Your task to perform on an android device: open sync settings in chrome Image 0: 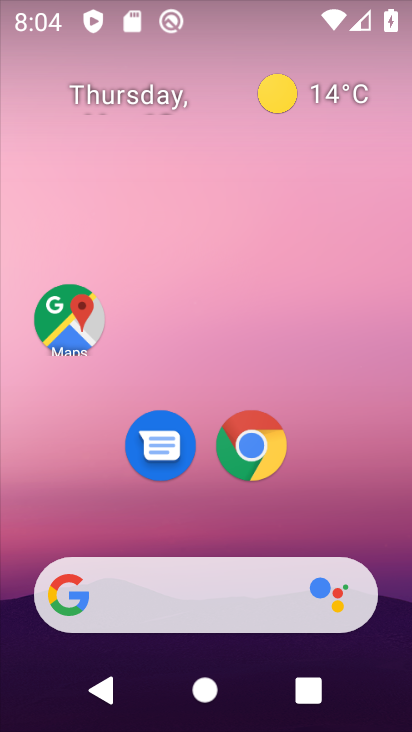
Step 0: click (249, 438)
Your task to perform on an android device: open sync settings in chrome Image 1: 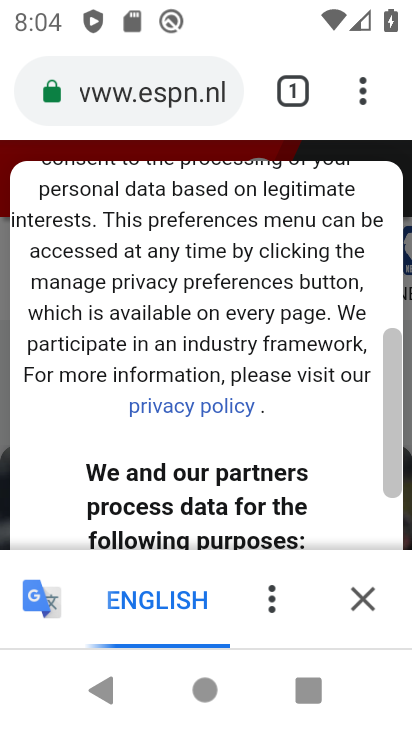
Step 1: click (364, 101)
Your task to perform on an android device: open sync settings in chrome Image 2: 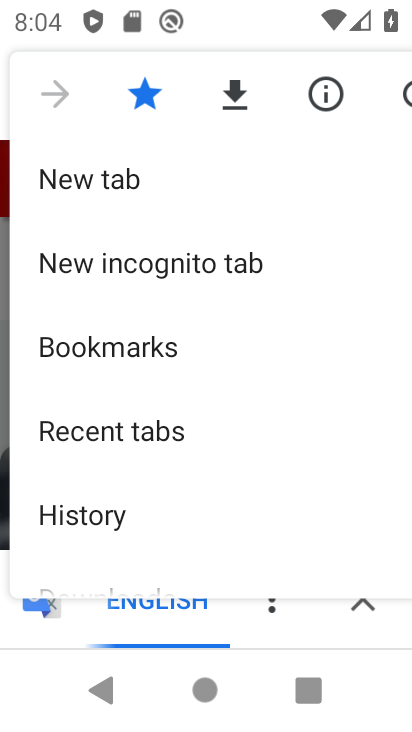
Step 2: drag from (125, 528) to (127, 219)
Your task to perform on an android device: open sync settings in chrome Image 3: 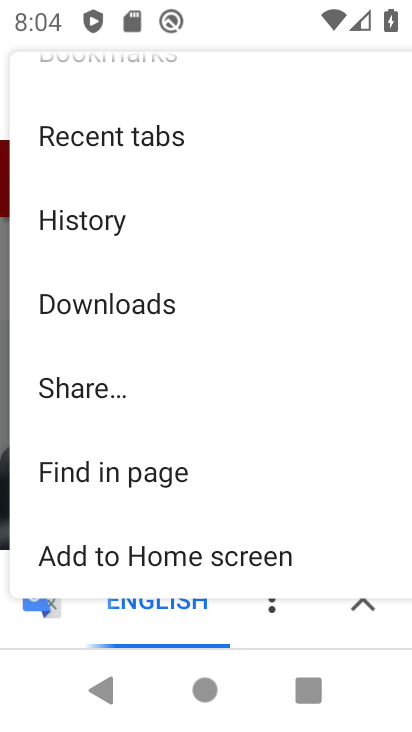
Step 3: drag from (119, 525) to (134, 168)
Your task to perform on an android device: open sync settings in chrome Image 4: 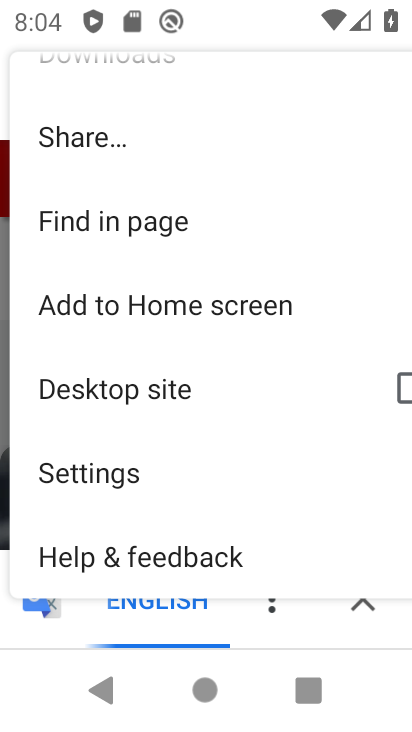
Step 4: click (107, 470)
Your task to perform on an android device: open sync settings in chrome Image 5: 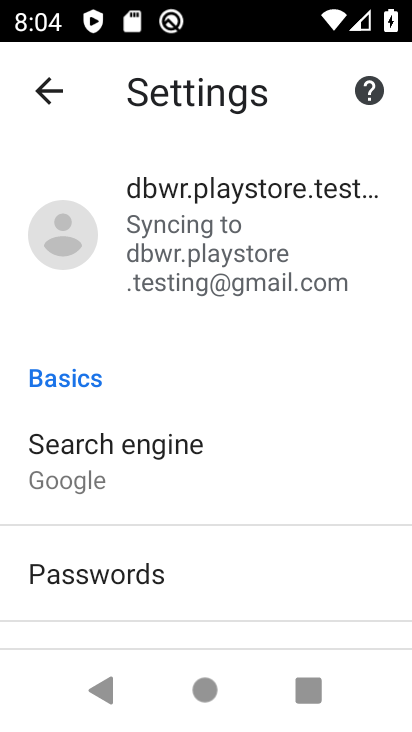
Step 5: drag from (177, 606) to (222, 321)
Your task to perform on an android device: open sync settings in chrome Image 6: 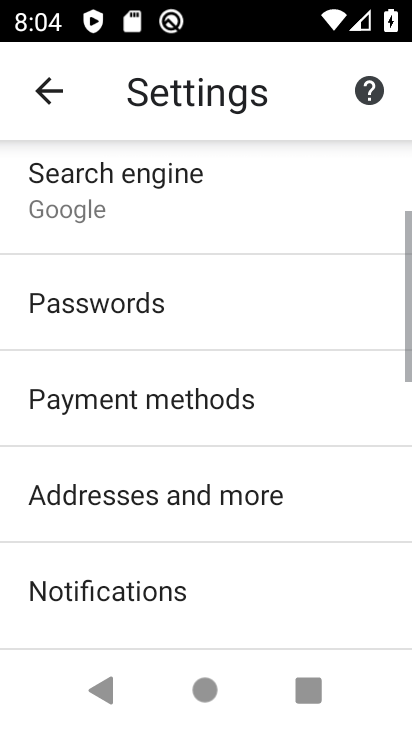
Step 6: drag from (217, 617) to (266, 271)
Your task to perform on an android device: open sync settings in chrome Image 7: 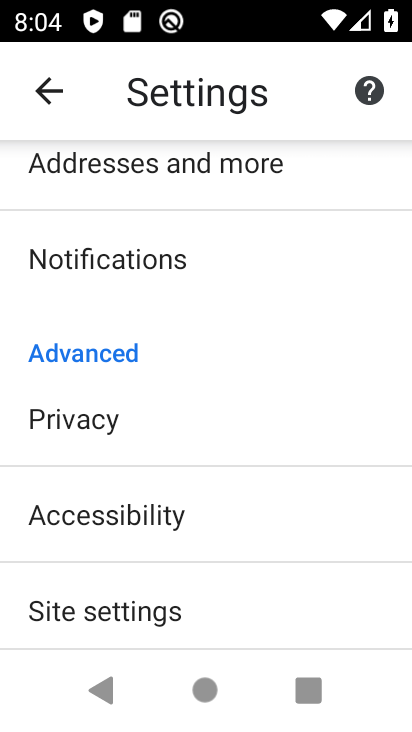
Step 7: click (160, 604)
Your task to perform on an android device: open sync settings in chrome Image 8: 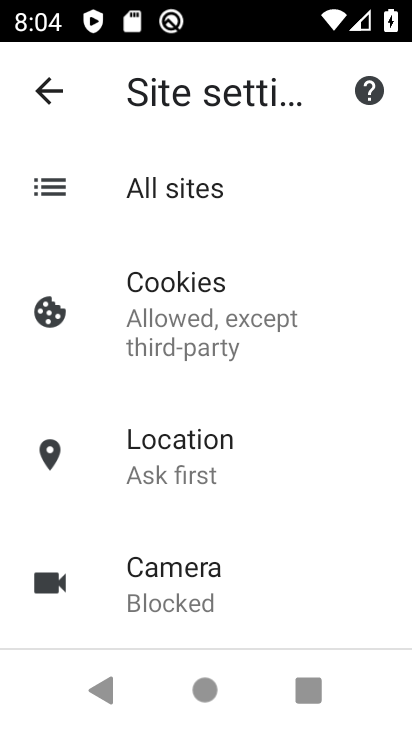
Step 8: drag from (260, 590) to (265, 286)
Your task to perform on an android device: open sync settings in chrome Image 9: 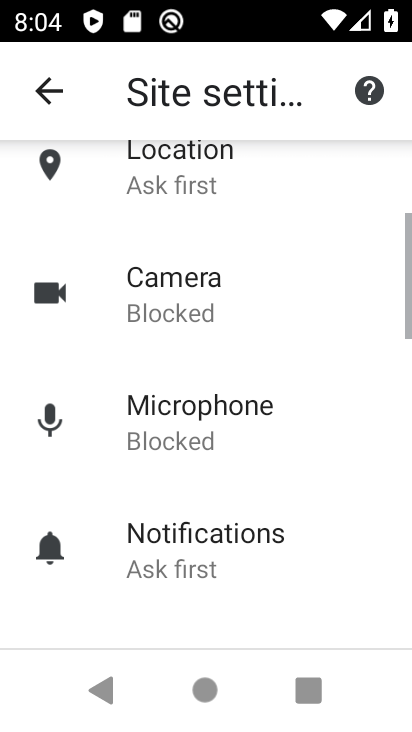
Step 9: drag from (265, 516) to (267, 277)
Your task to perform on an android device: open sync settings in chrome Image 10: 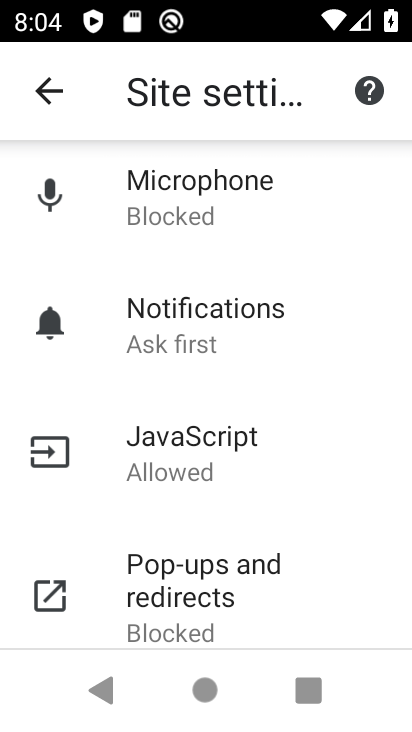
Step 10: drag from (256, 545) to (268, 283)
Your task to perform on an android device: open sync settings in chrome Image 11: 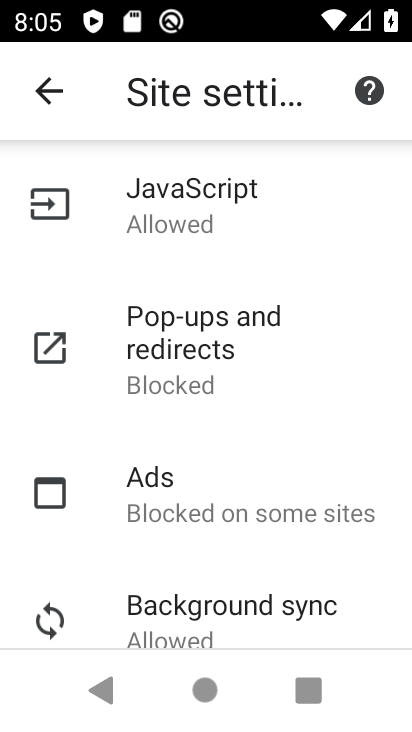
Step 11: click (220, 601)
Your task to perform on an android device: open sync settings in chrome Image 12: 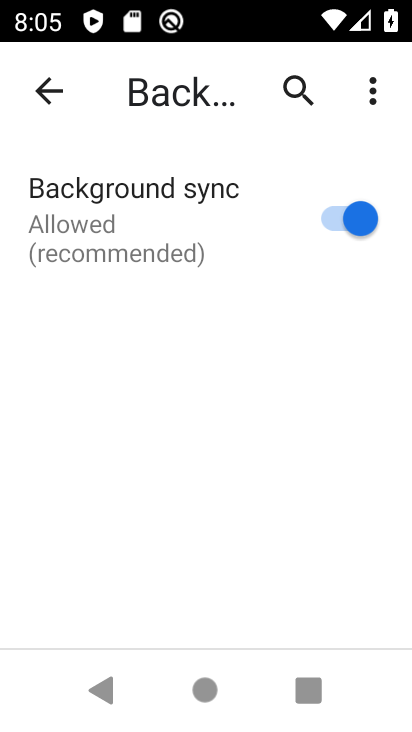
Step 12: task complete